Your task to perform on an android device: turn on airplane mode Image 0: 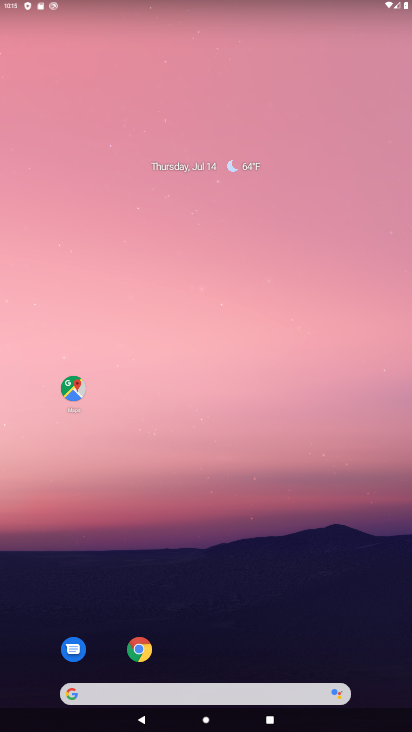
Step 0: drag from (356, 0) to (307, 686)
Your task to perform on an android device: turn on airplane mode Image 1: 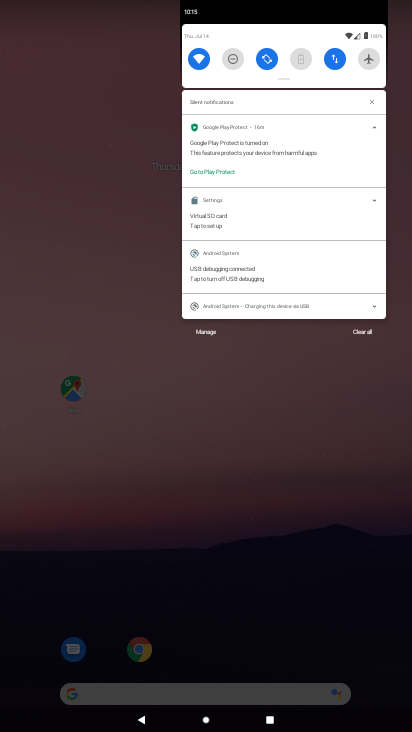
Step 1: click (367, 57)
Your task to perform on an android device: turn on airplane mode Image 2: 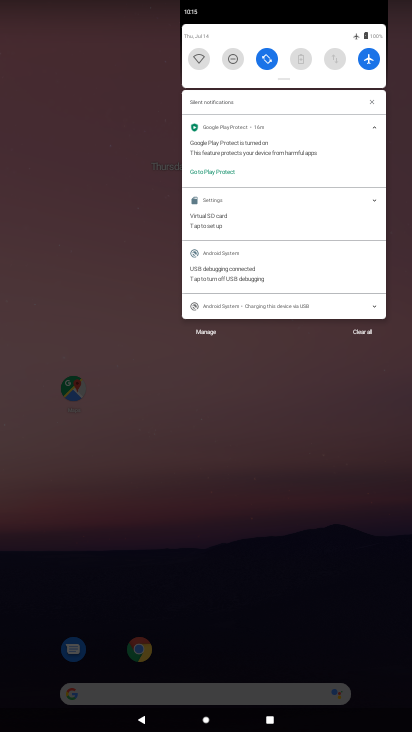
Step 2: task complete